Your task to perform on an android device: turn on sleep mode Image 0: 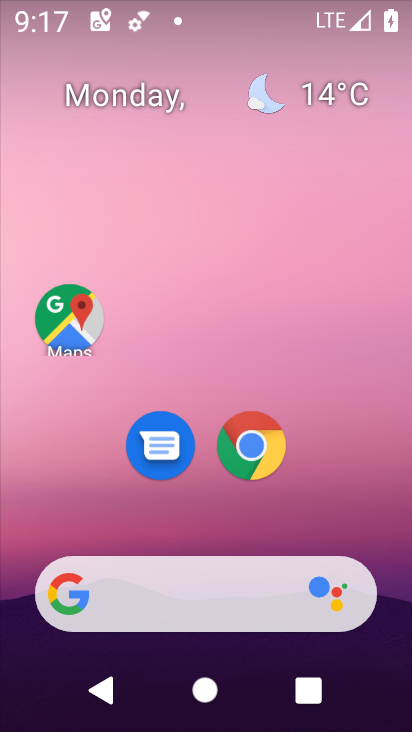
Step 0: drag from (216, 524) to (216, 7)
Your task to perform on an android device: turn on sleep mode Image 1: 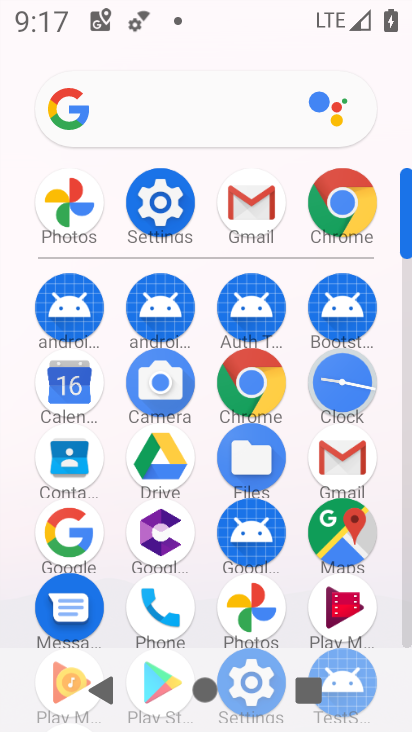
Step 1: click (156, 195)
Your task to perform on an android device: turn on sleep mode Image 2: 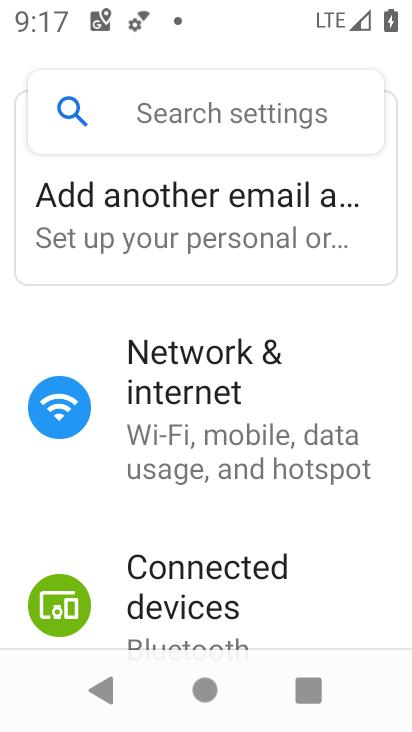
Step 2: drag from (200, 608) to (223, 137)
Your task to perform on an android device: turn on sleep mode Image 3: 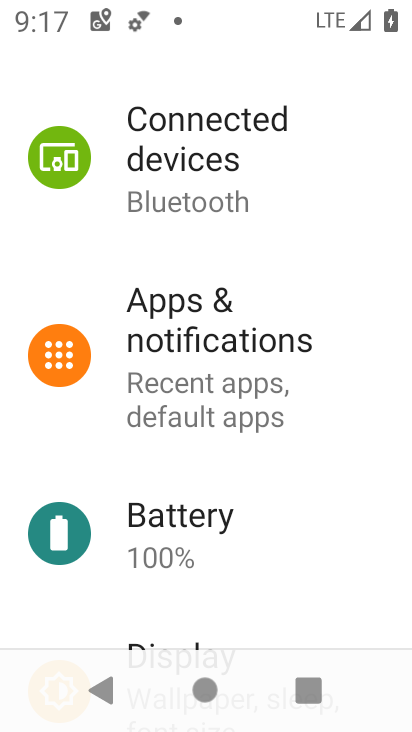
Step 3: drag from (224, 609) to (235, 185)
Your task to perform on an android device: turn on sleep mode Image 4: 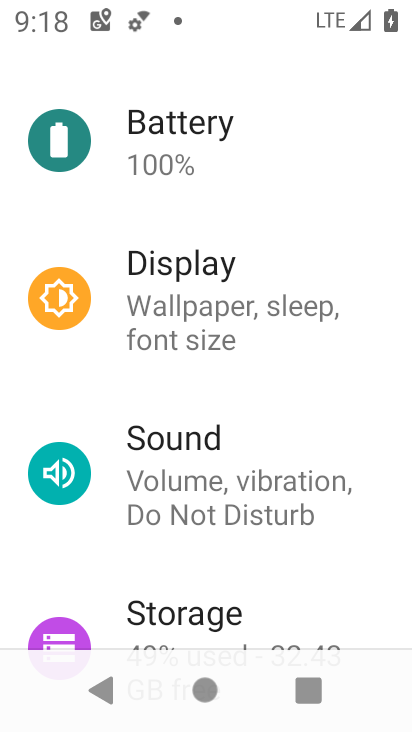
Step 4: click (104, 285)
Your task to perform on an android device: turn on sleep mode Image 5: 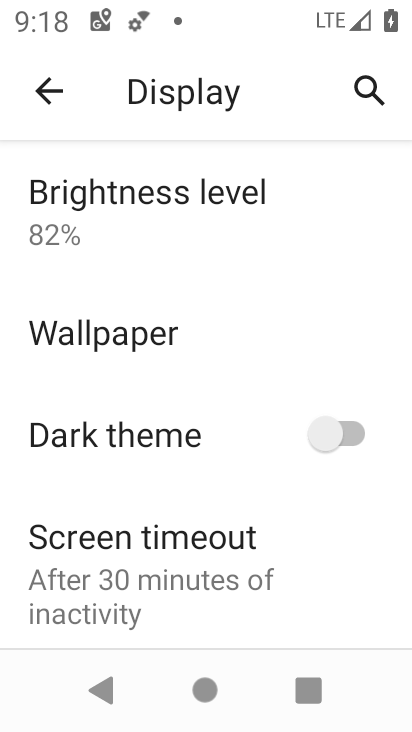
Step 5: drag from (194, 606) to (190, 132)
Your task to perform on an android device: turn on sleep mode Image 6: 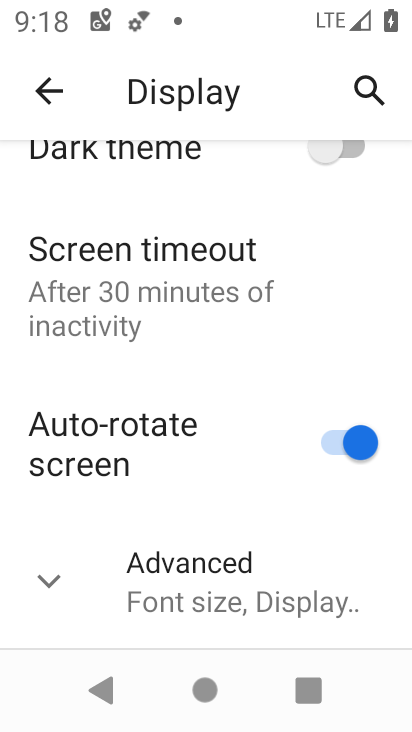
Step 6: drag from (206, 554) to (205, 94)
Your task to perform on an android device: turn on sleep mode Image 7: 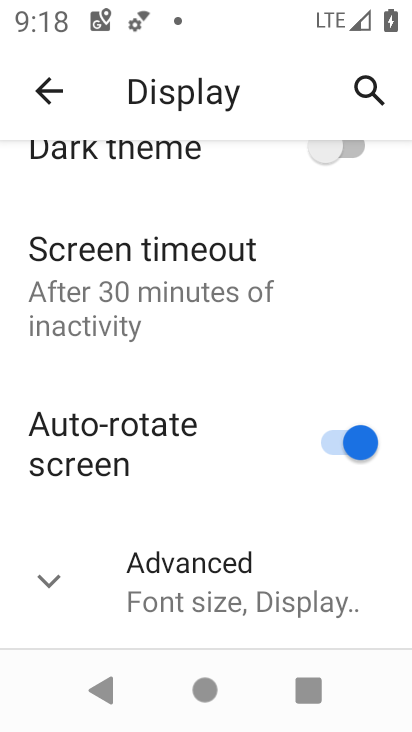
Step 7: click (54, 581)
Your task to perform on an android device: turn on sleep mode Image 8: 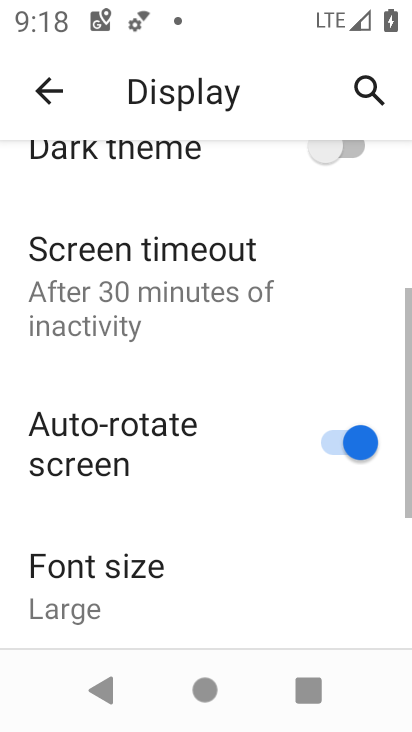
Step 8: task complete